Your task to perform on an android device: Play the last video I watched on Youtube Image 0: 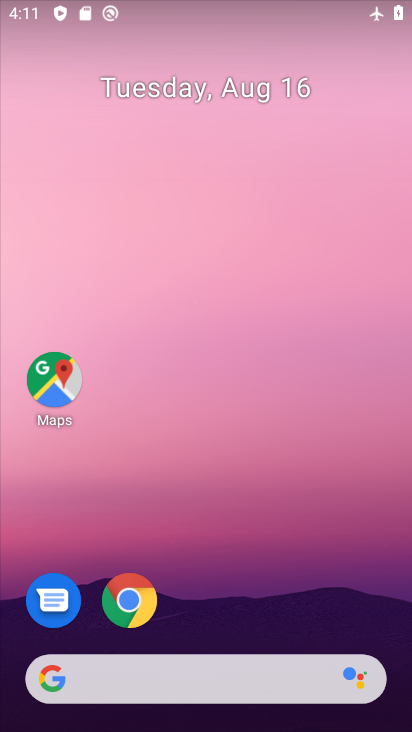
Step 0: drag from (229, 631) to (242, 49)
Your task to perform on an android device: Play the last video I watched on Youtube Image 1: 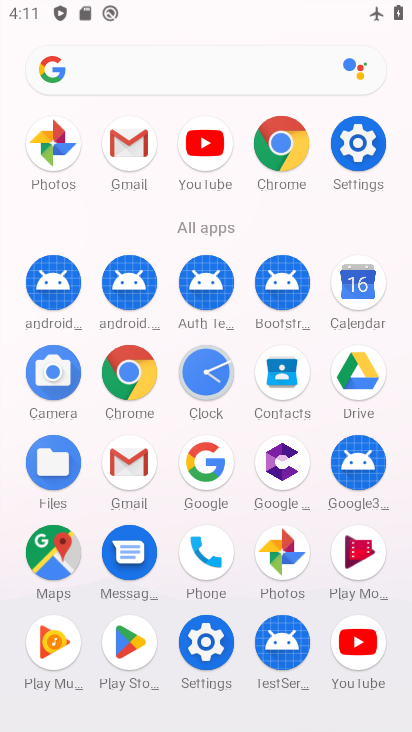
Step 1: click (366, 656)
Your task to perform on an android device: Play the last video I watched on Youtube Image 2: 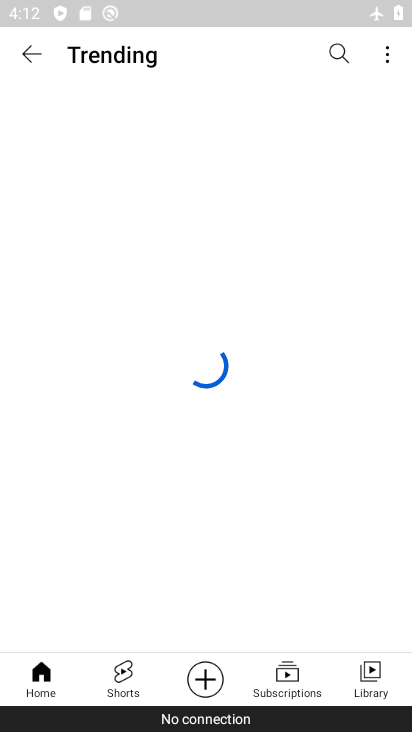
Step 2: click (374, 671)
Your task to perform on an android device: Play the last video I watched on Youtube Image 3: 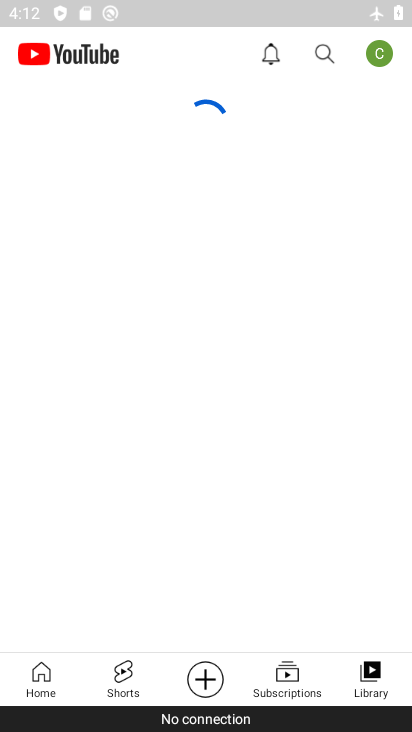
Step 3: task complete